Your task to perform on an android device: open sync settings in chrome Image 0: 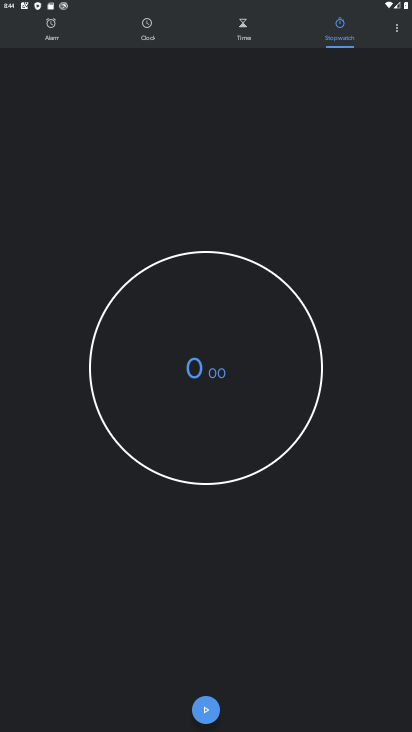
Step 0: press home button
Your task to perform on an android device: open sync settings in chrome Image 1: 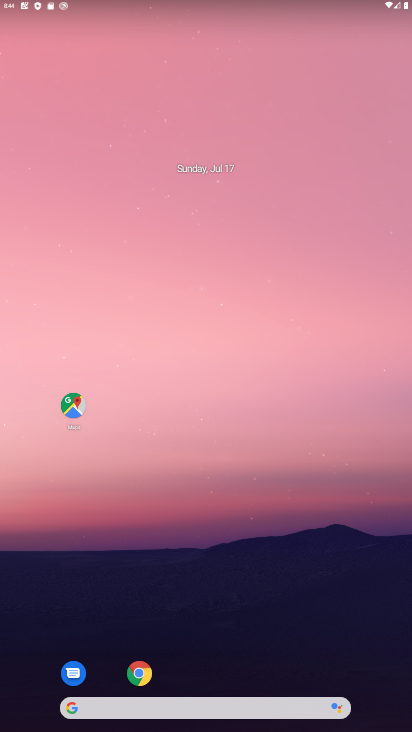
Step 1: drag from (296, 652) to (268, 96)
Your task to perform on an android device: open sync settings in chrome Image 2: 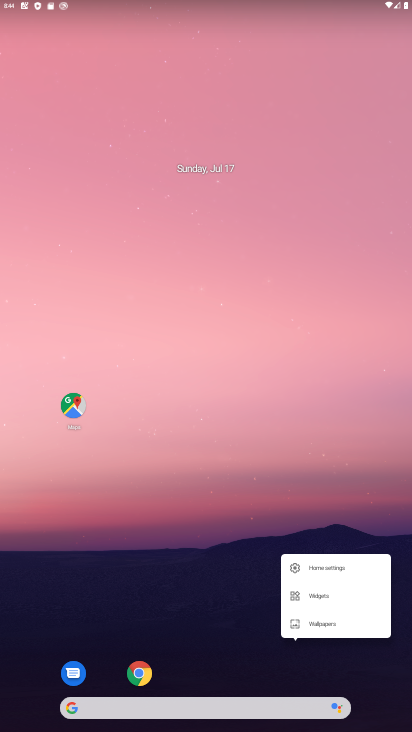
Step 2: click (193, 444)
Your task to perform on an android device: open sync settings in chrome Image 3: 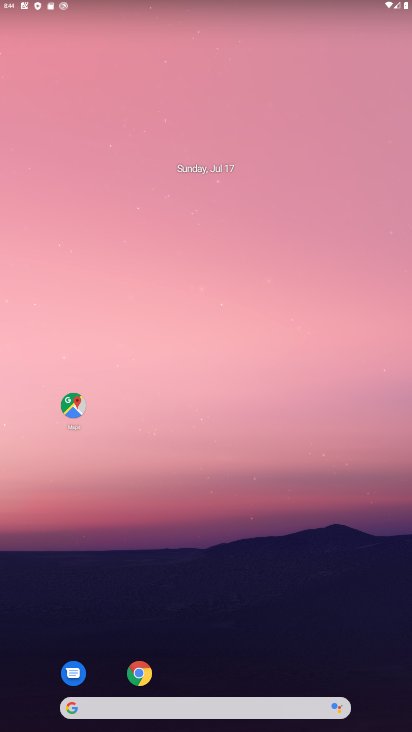
Step 3: click (195, 603)
Your task to perform on an android device: open sync settings in chrome Image 4: 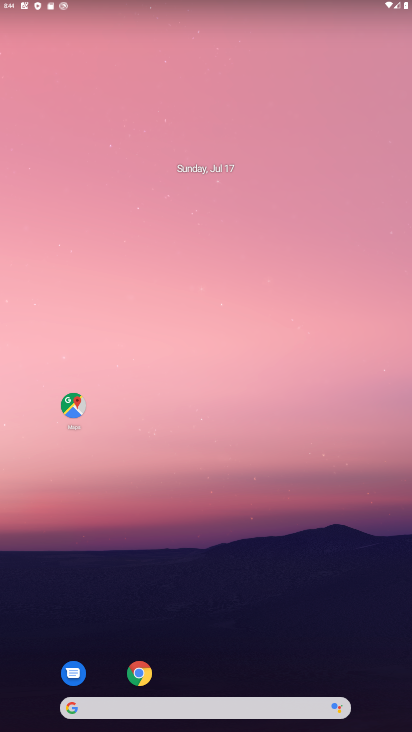
Step 4: drag from (223, 626) to (299, 141)
Your task to perform on an android device: open sync settings in chrome Image 5: 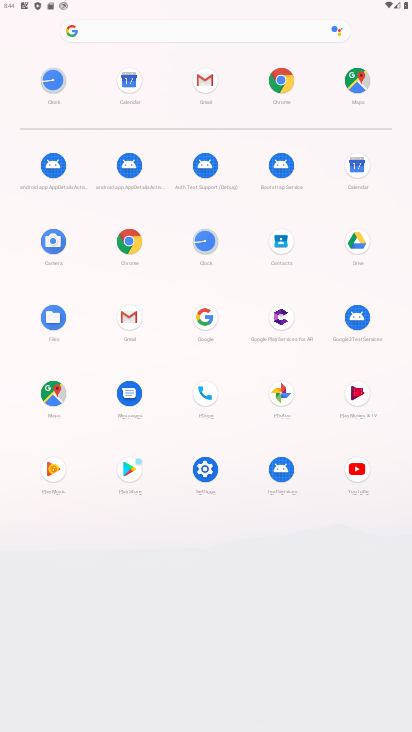
Step 5: click (130, 236)
Your task to perform on an android device: open sync settings in chrome Image 6: 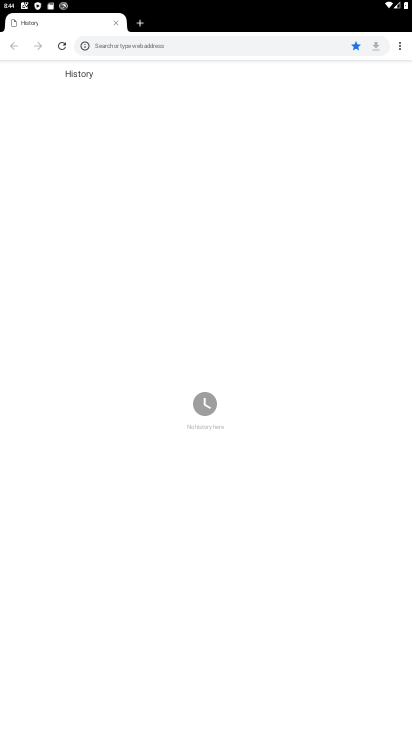
Step 6: click (405, 46)
Your task to perform on an android device: open sync settings in chrome Image 7: 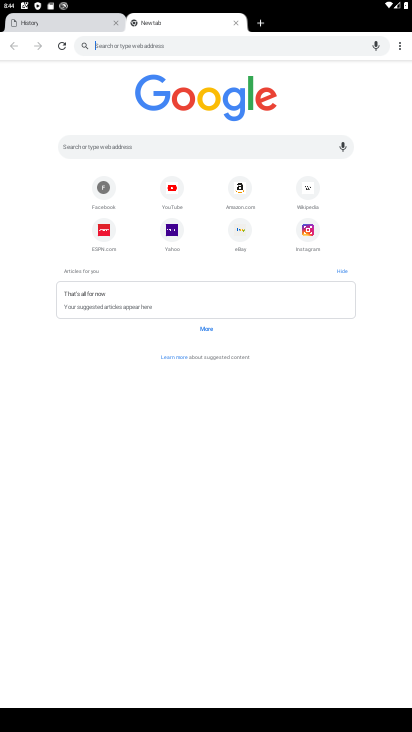
Step 7: drag from (402, 39) to (308, 214)
Your task to perform on an android device: open sync settings in chrome Image 8: 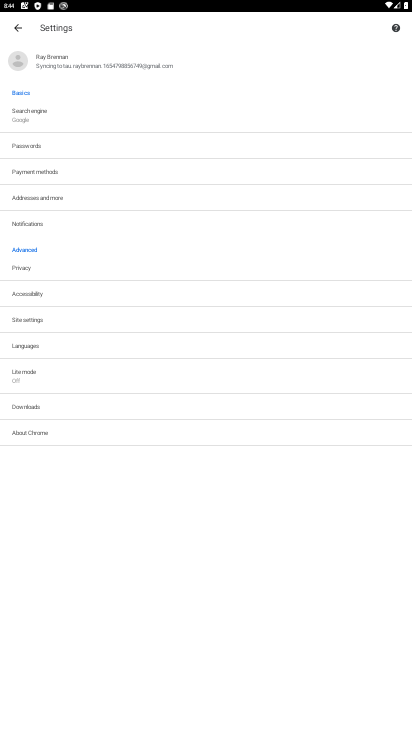
Step 8: click (84, 54)
Your task to perform on an android device: open sync settings in chrome Image 9: 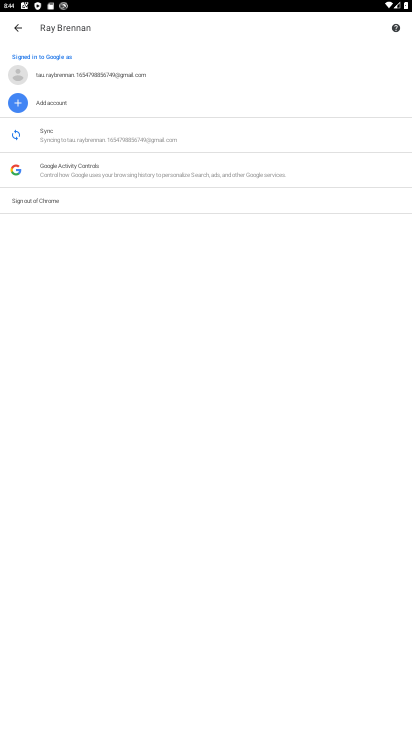
Step 9: click (94, 141)
Your task to perform on an android device: open sync settings in chrome Image 10: 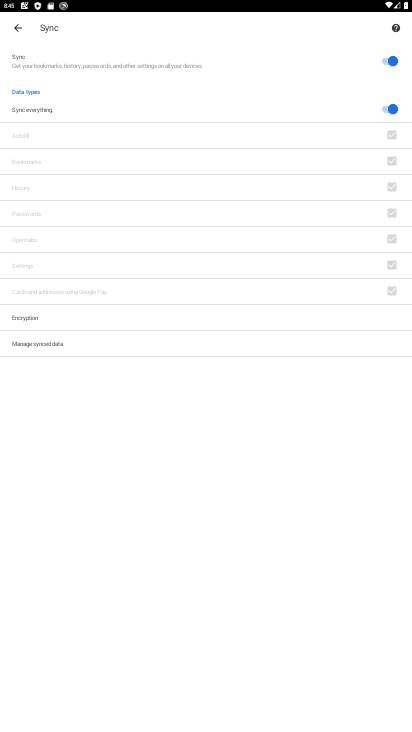
Step 10: task complete